Your task to perform on an android device: Open ESPN.com Image 0: 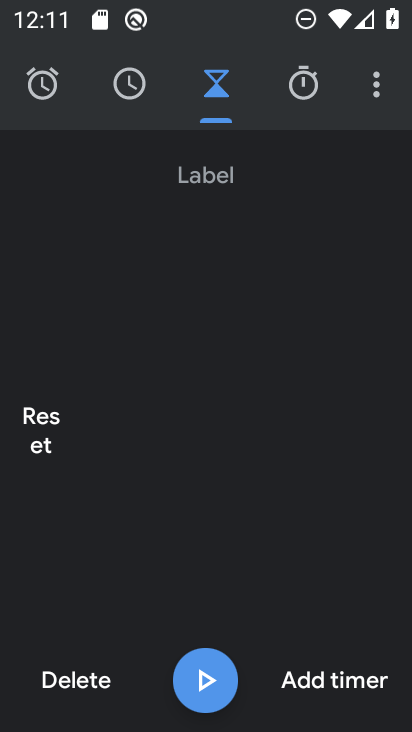
Step 0: press home button
Your task to perform on an android device: Open ESPN.com Image 1: 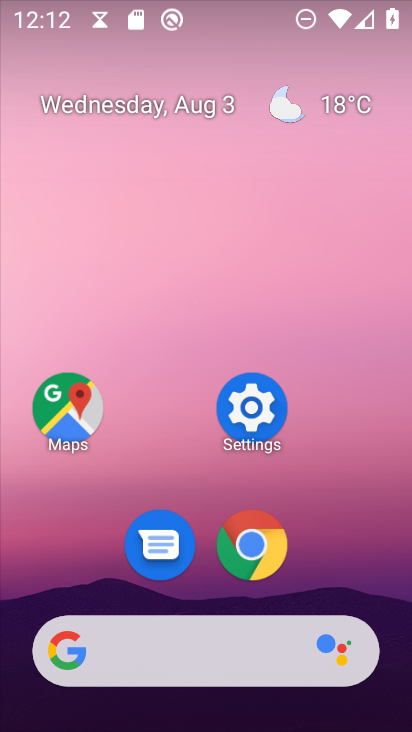
Step 1: click (260, 549)
Your task to perform on an android device: Open ESPN.com Image 2: 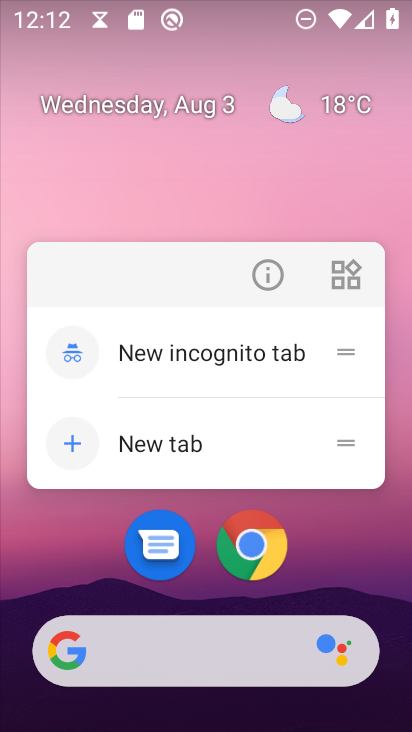
Step 2: click (260, 549)
Your task to perform on an android device: Open ESPN.com Image 3: 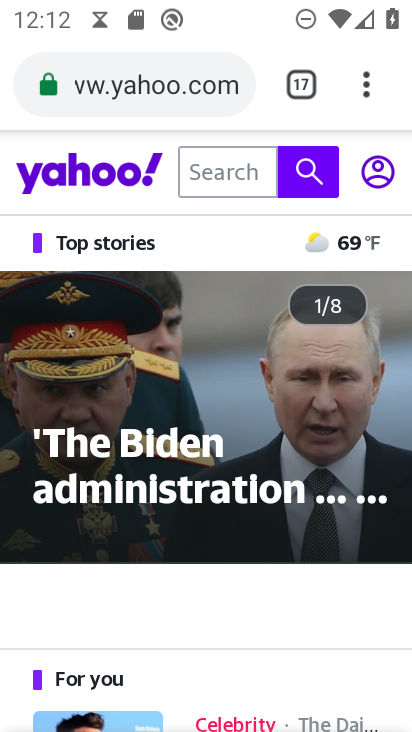
Step 3: drag from (366, 76) to (185, 175)
Your task to perform on an android device: Open ESPN.com Image 4: 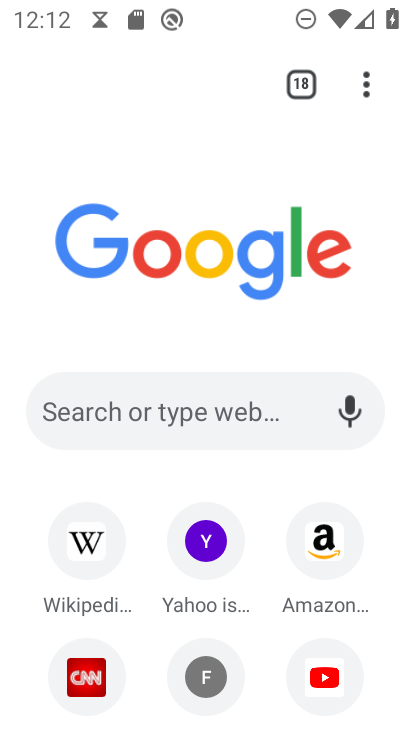
Step 4: drag from (184, 498) to (259, 339)
Your task to perform on an android device: Open ESPN.com Image 5: 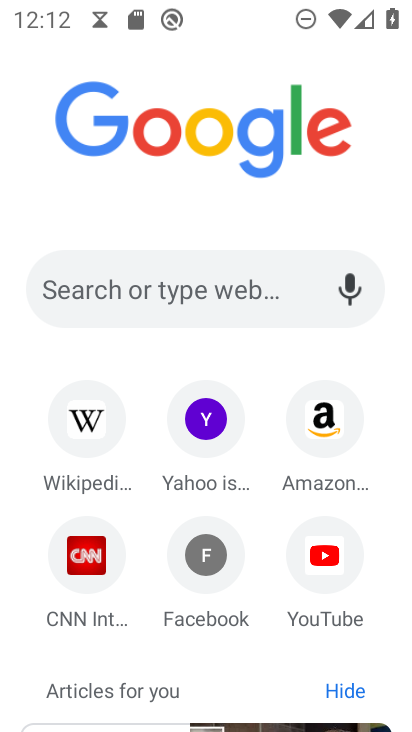
Step 5: click (157, 293)
Your task to perform on an android device: Open ESPN.com Image 6: 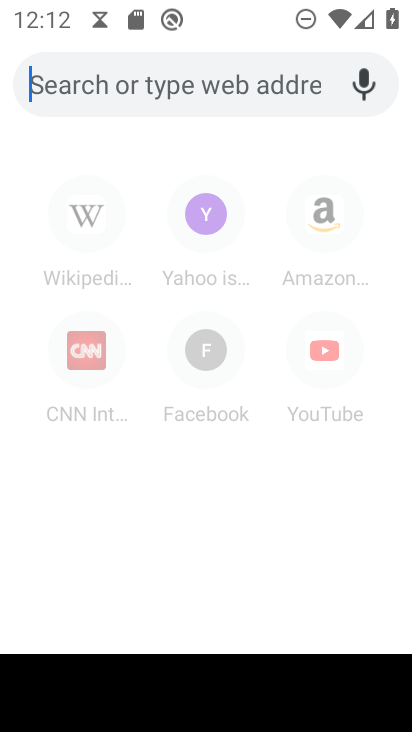
Step 6: type " ESPN.com"
Your task to perform on an android device: Open ESPN.com Image 7: 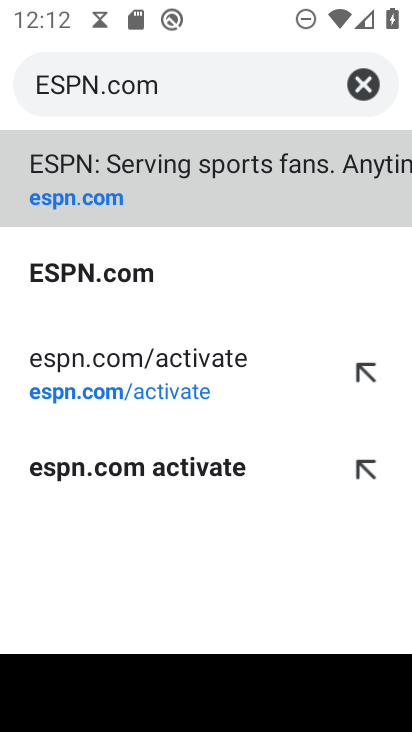
Step 7: click (169, 185)
Your task to perform on an android device: Open ESPN.com Image 8: 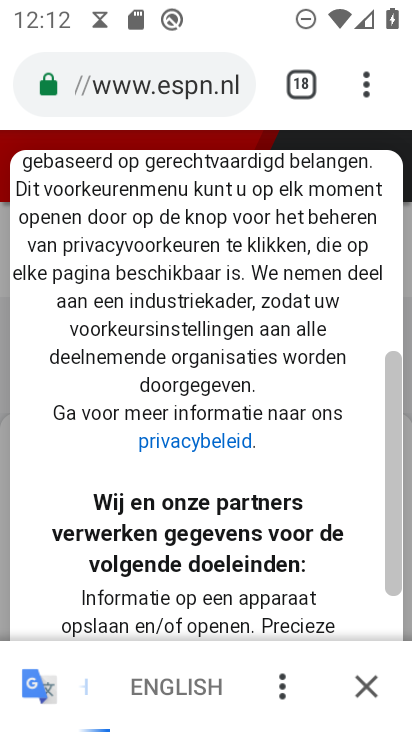
Step 8: click (191, 679)
Your task to perform on an android device: Open ESPN.com Image 9: 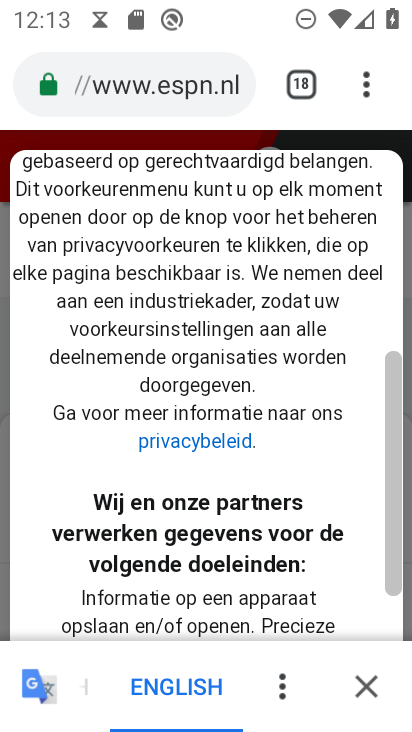
Step 9: drag from (220, 565) to (363, 205)
Your task to perform on an android device: Open ESPN.com Image 10: 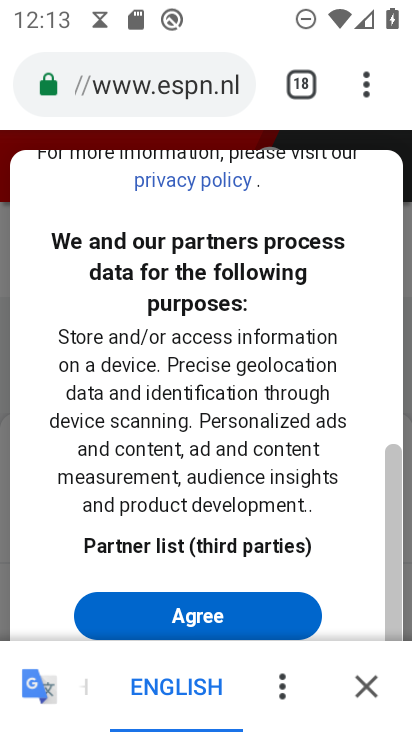
Step 10: click (239, 608)
Your task to perform on an android device: Open ESPN.com Image 11: 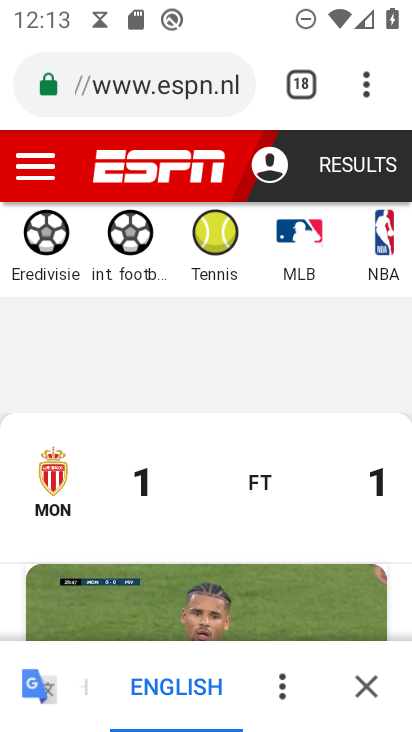
Step 11: task complete